Your task to perform on an android device: Open Wikipedia Image 0: 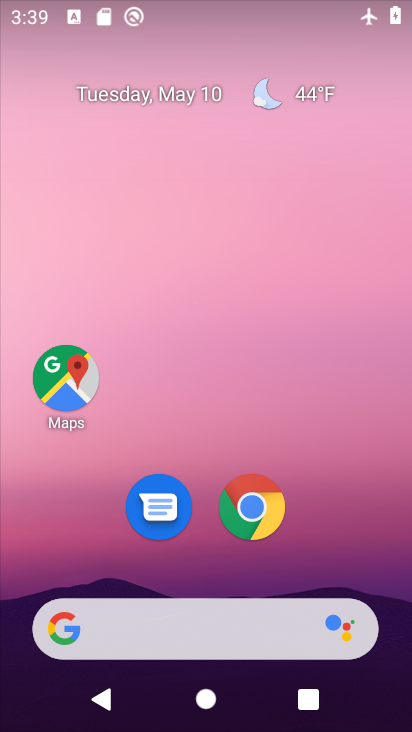
Step 0: click (253, 508)
Your task to perform on an android device: Open Wikipedia Image 1: 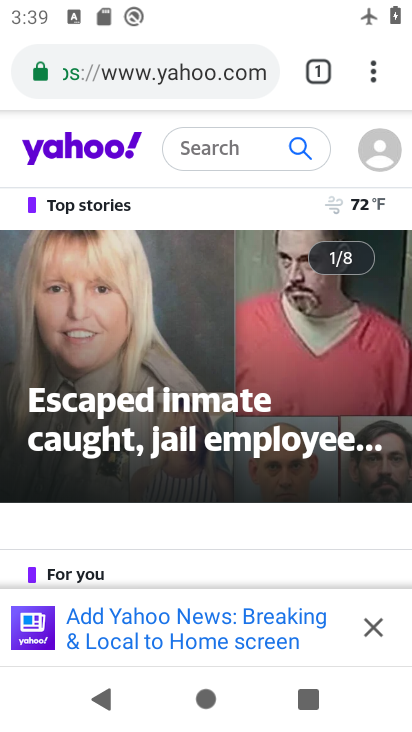
Step 1: click (187, 79)
Your task to perform on an android device: Open Wikipedia Image 2: 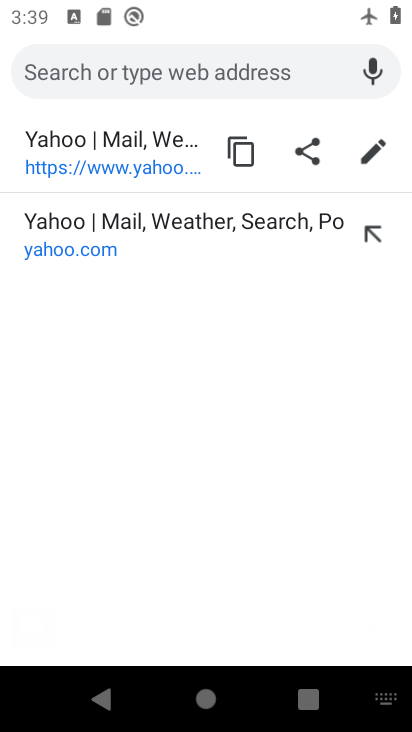
Step 2: type "wikipedia"
Your task to perform on an android device: Open Wikipedia Image 3: 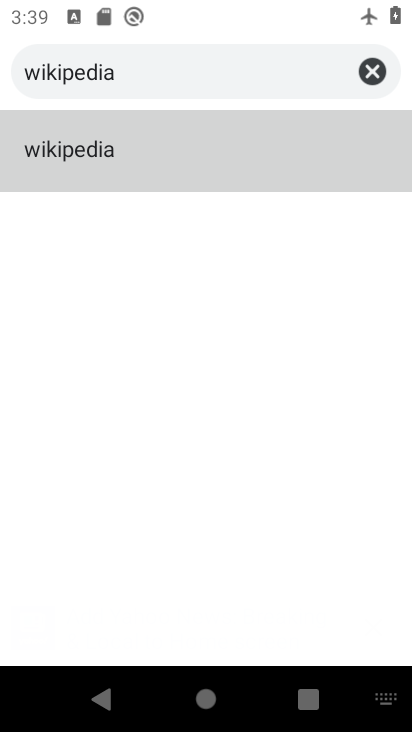
Step 3: click (133, 166)
Your task to perform on an android device: Open Wikipedia Image 4: 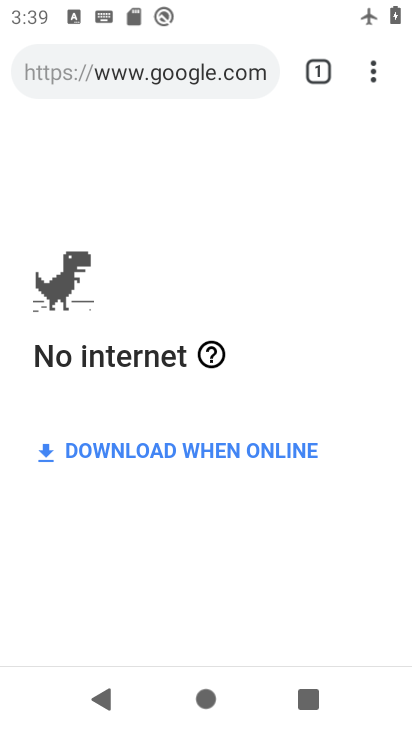
Step 4: task complete